Your task to perform on an android device: empty trash in the gmail app Image 0: 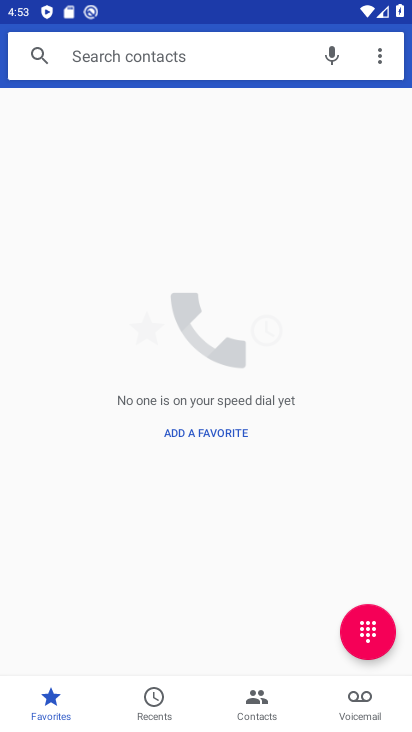
Step 0: drag from (283, 48) to (251, 509)
Your task to perform on an android device: empty trash in the gmail app Image 1: 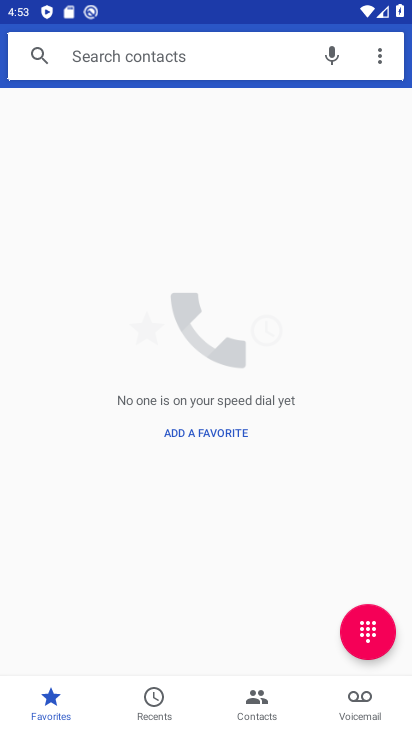
Step 1: press home button
Your task to perform on an android device: empty trash in the gmail app Image 2: 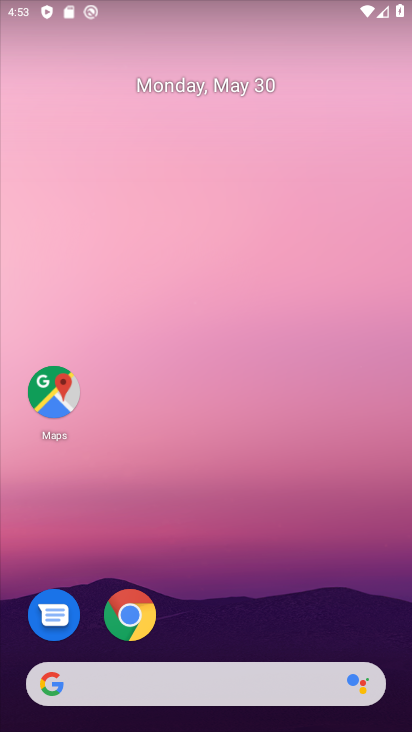
Step 2: drag from (244, 633) to (231, 76)
Your task to perform on an android device: empty trash in the gmail app Image 3: 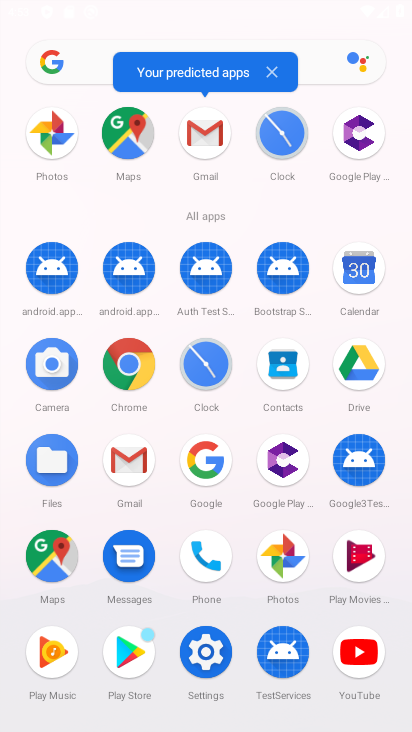
Step 3: click (208, 122)
Your task to perform on an android device: empty trash in the gmail app Image 4: 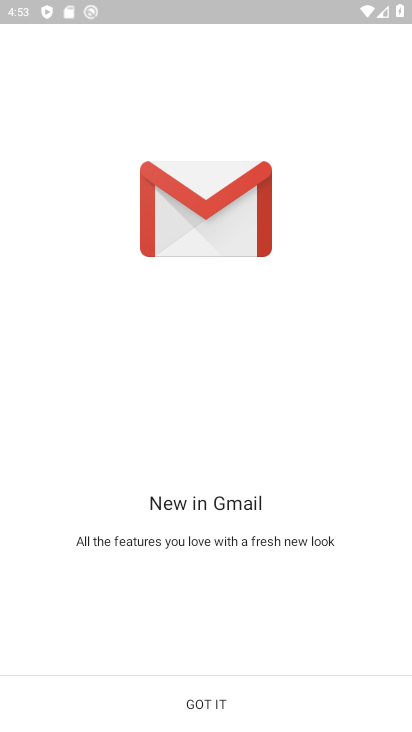
Step 4: click (229, 702)
Your task to perform on an android device: empty trash in the gmail app Image 5: 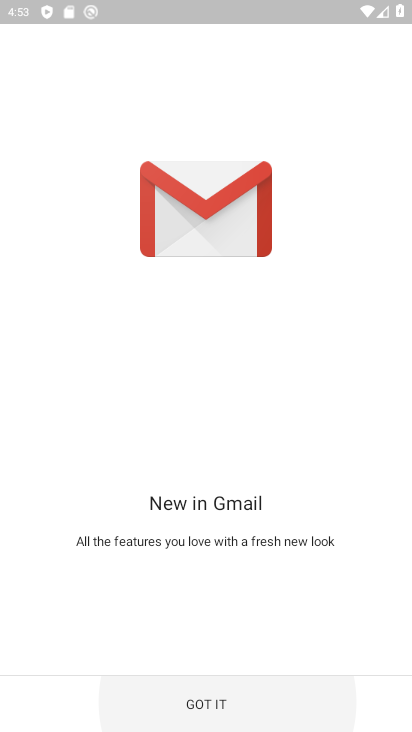
Step 5: click (229, 702)
Your task to perform on an android device: empty trash in the gmail app Image 6: 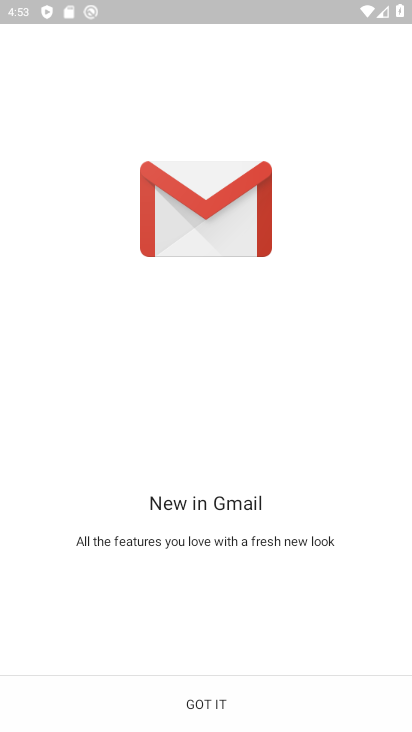
Step 6: click (229, 702)
Your task to perform on an android device: empty trash in the gmail app Image 7: 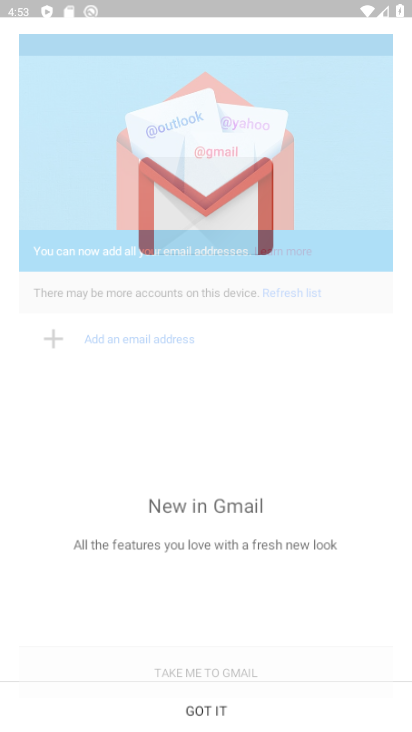
Step 7: click (229, 702)
Your task to perform on an android device: empty trash in the gmail app Image 8: 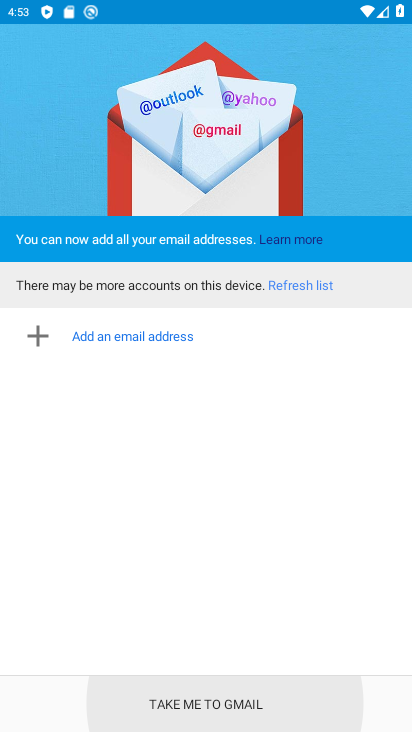
Step 8: click (229, 702)
Your task to perform on an android device: empty trash in the gmail app Image 9: 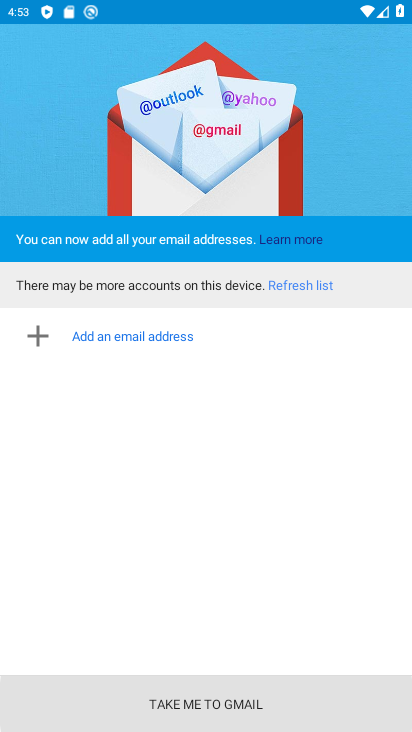
Step 9: click (229, 702)
Your task to perform on an android device: empty trash in the gmail app Image 10: 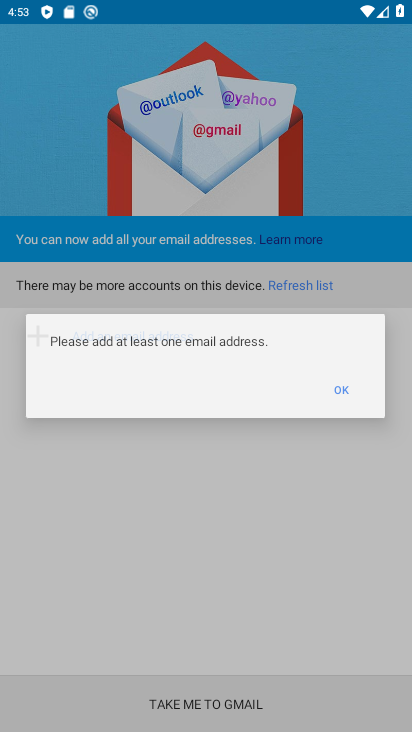
Step 10: click (229, 702)
Your task to perform on an android device: empty trash in the gmail app Image 11: 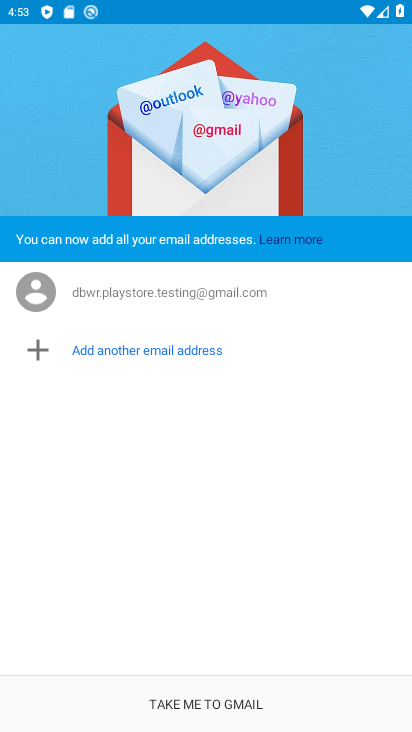
Step 11: click (364, 389)
Your task to perform on an android device: empty trash in the gmail app Image 12: 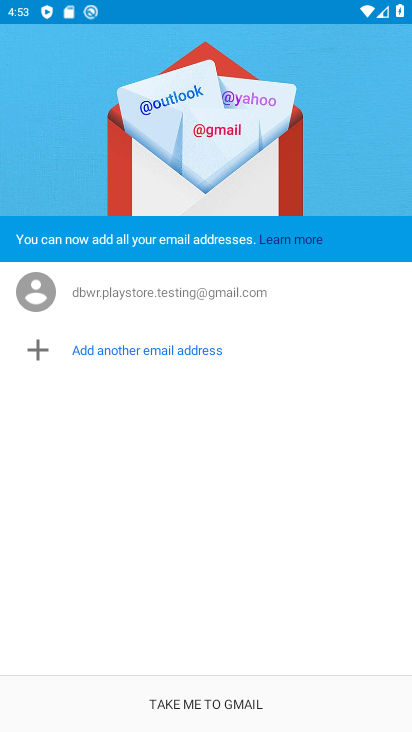
Step 12: click (218, 298)
Your task to perform on an android device: empty trash in the gmail app Image 13: 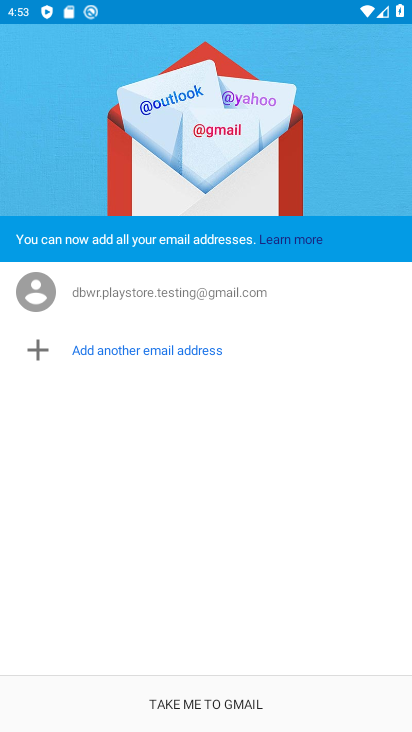
Step 13: click (217, 697)
Your task to perform on an android device: empty trash in the gmail app Image 14: 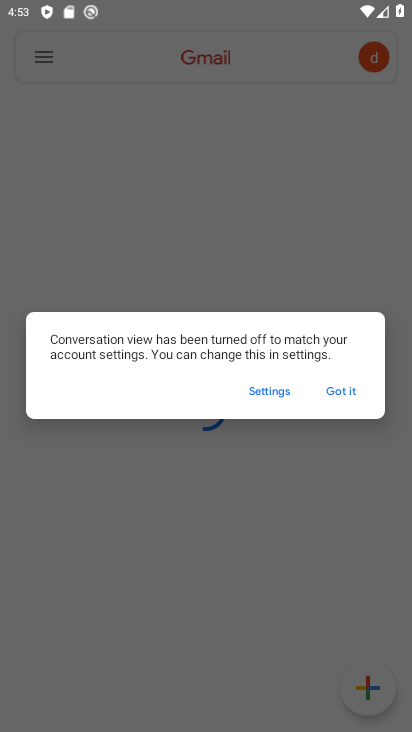
Step 14: click (352, 386)
Your task to perform on an android device: empty trash in the gmail app Image 15: 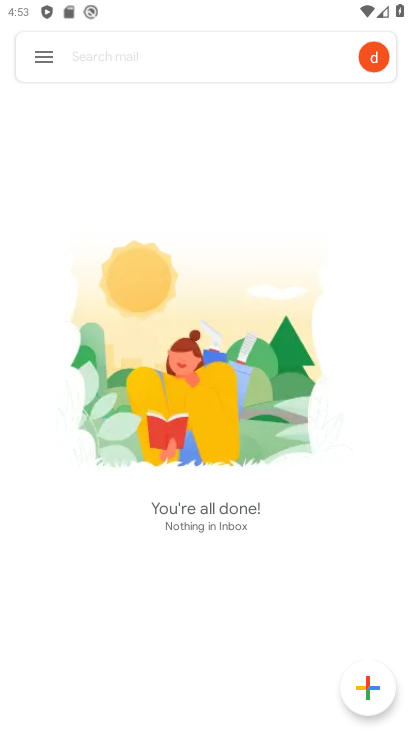
Step 15: click (52, 63)
Your task to perform on an android device: empty trash in the gmail app Image 16: 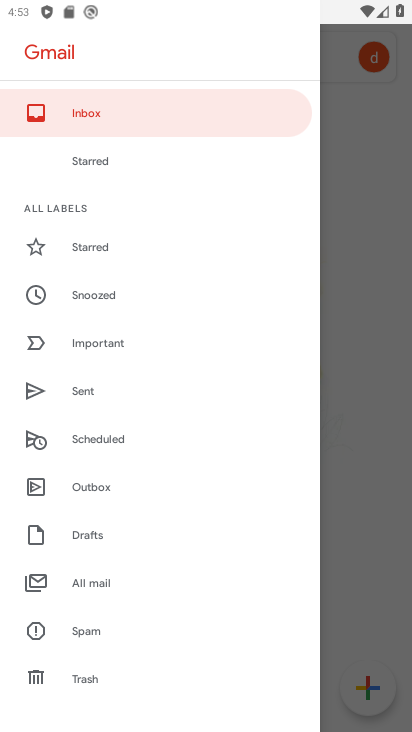
Step 16: click (85, 681)
Your task to perform on an android device: empty trash in the gmail app Image 17: 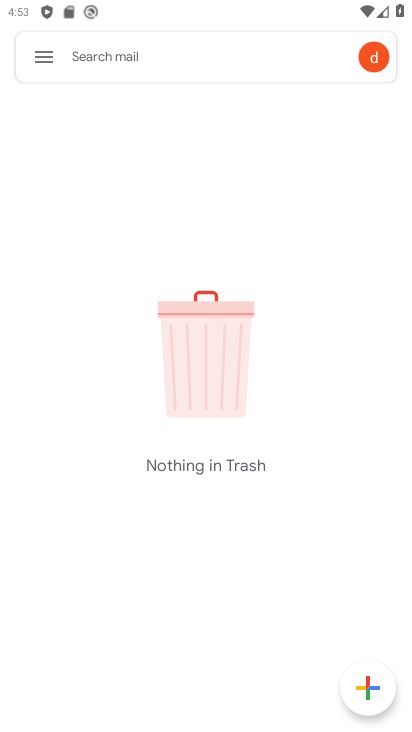
Step 17: task complete